Your task to perform on an android device: toggle wifi Image 0: 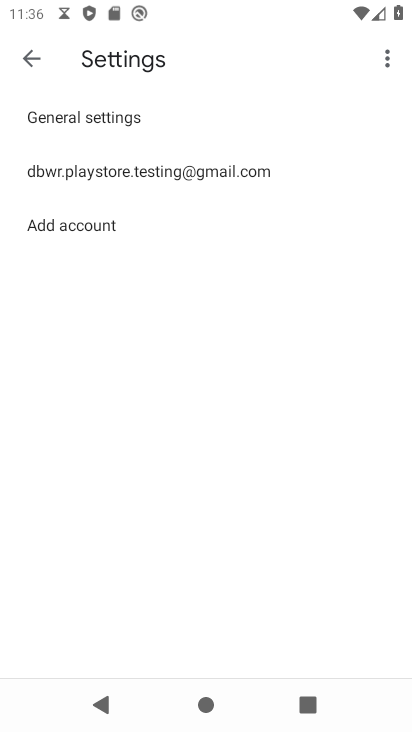
Step 0: press home button
Your task to perform on an android device: toggle wifi Image 1: 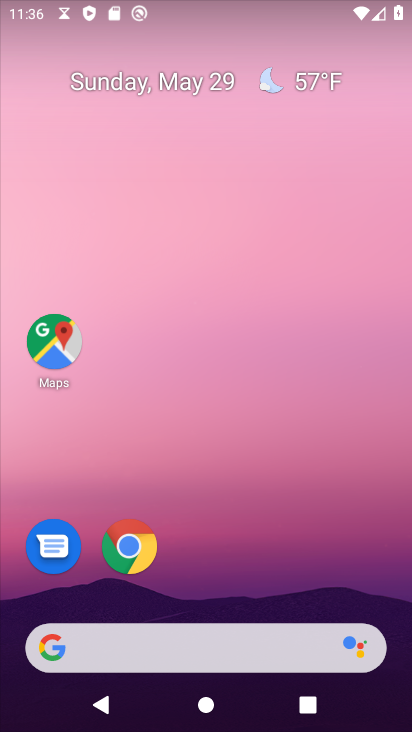
Step 1: drag from (171, 645) to (365, 52)
Your task to perform on an android device: toggle wifi Image 2: 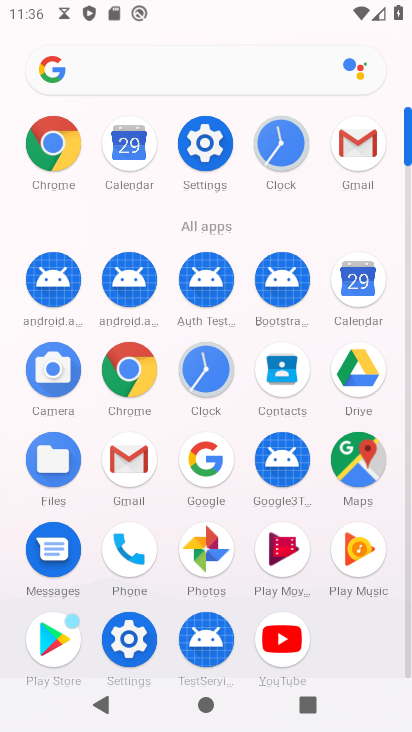
Step 2: click (209, 140)
Your task to perform on an android device: toggle wifi Image 3: 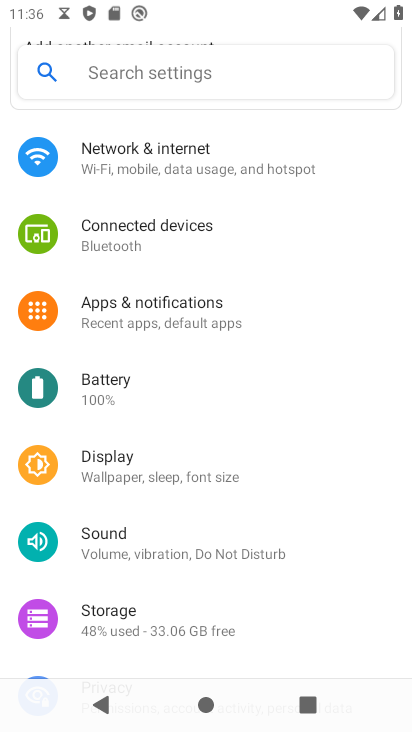
Step 3: click (189, 151)
Your task to perform on an android device: toggle wifi Image 4: 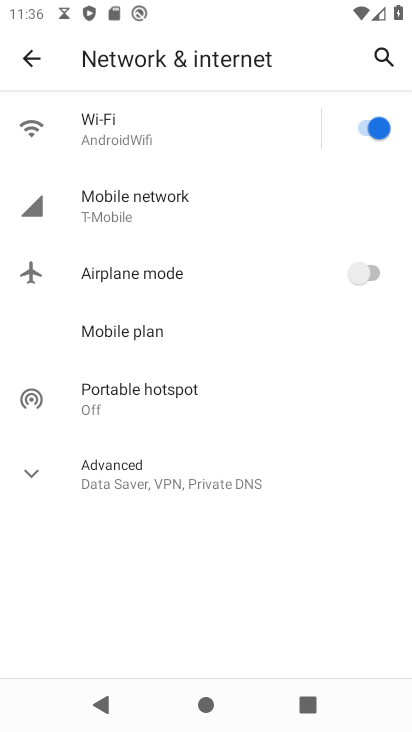
Step 4: click (359, 124)
Your task to perform on an android device: toggle wifi Image 5: 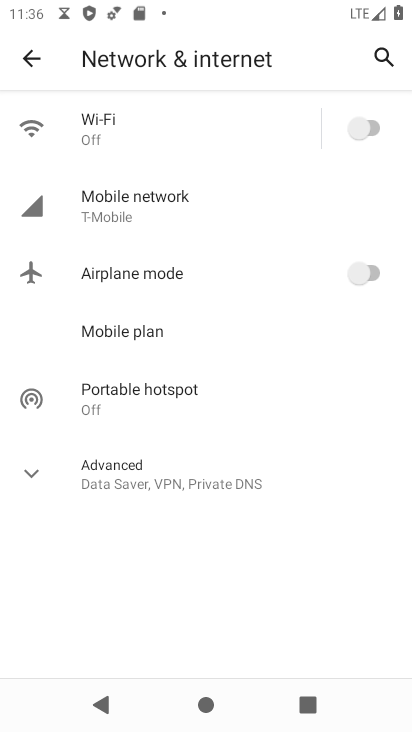
Step 5: task complete